Your task to perform on an android device: change timer sound Image 0: 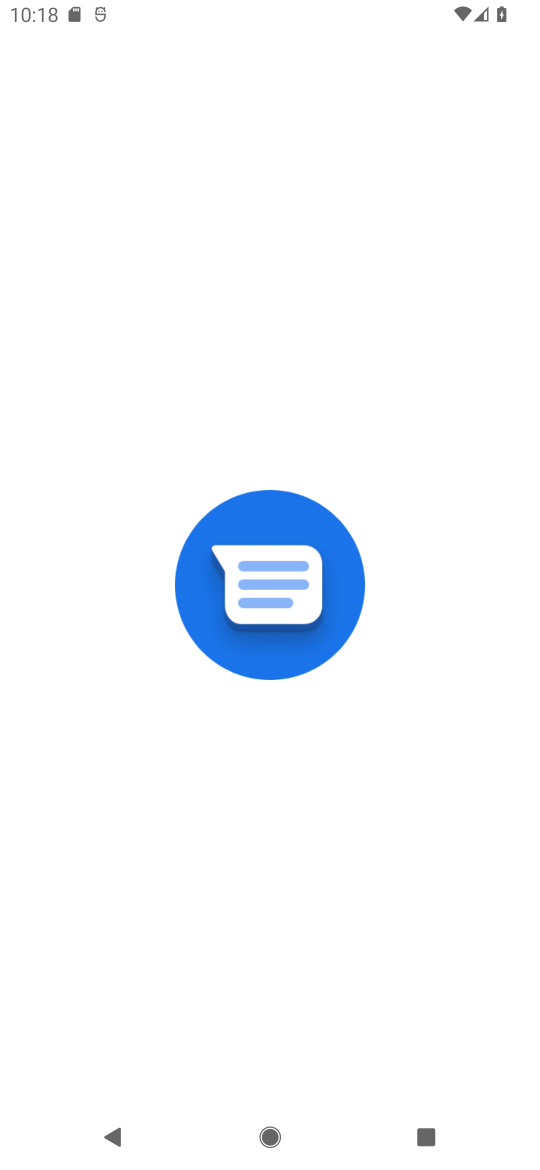
Step 0: press home button
Your task to perform on an android device: change timer sound Image 1: 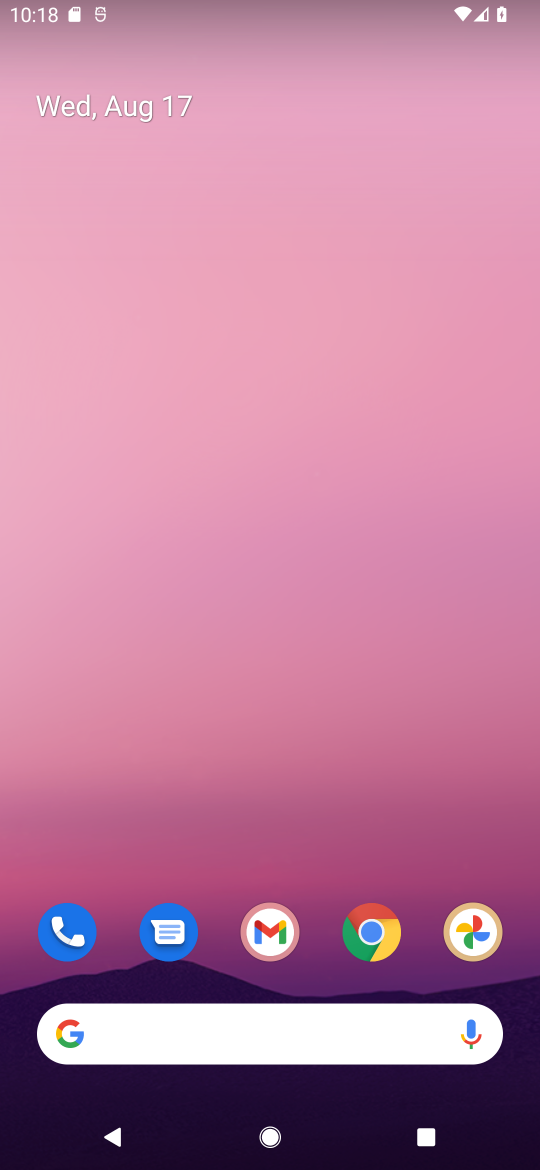
Step 1: drag from (338, 907) to (338, 78)
Your task to perform on an android device: change timer sound Image 2: 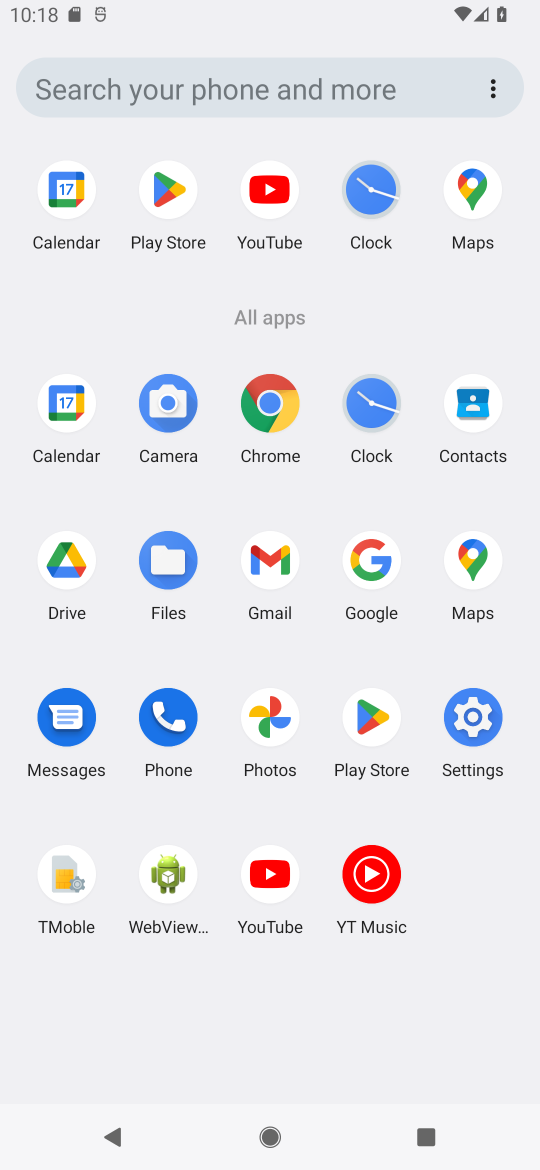
Step 2: click (374, 398)
Your task to perform on an android device: change timer sound Image 3: 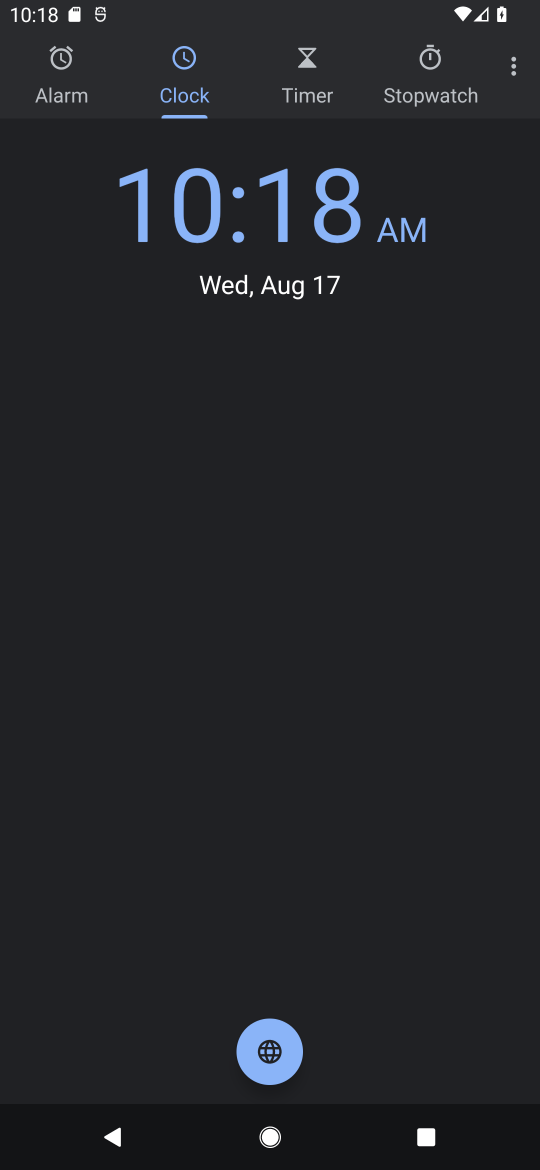
Step 3: click (512, 74)
Your task to perform on an android device: change timer sound Image 4: 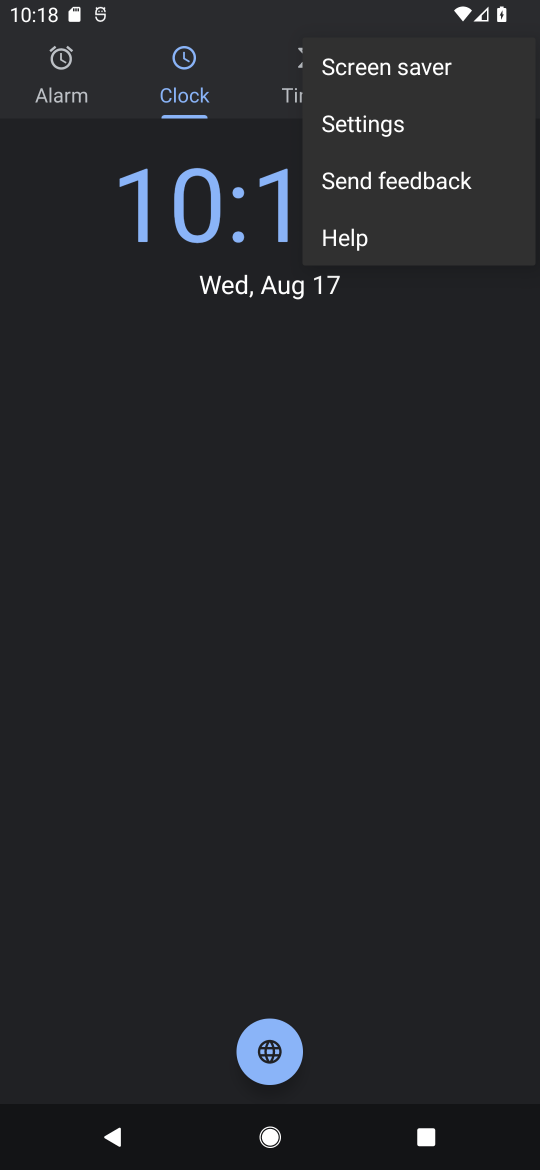
Step 4: click (370, 130)
Your task to perform on an android device: change timer sound Image 5: 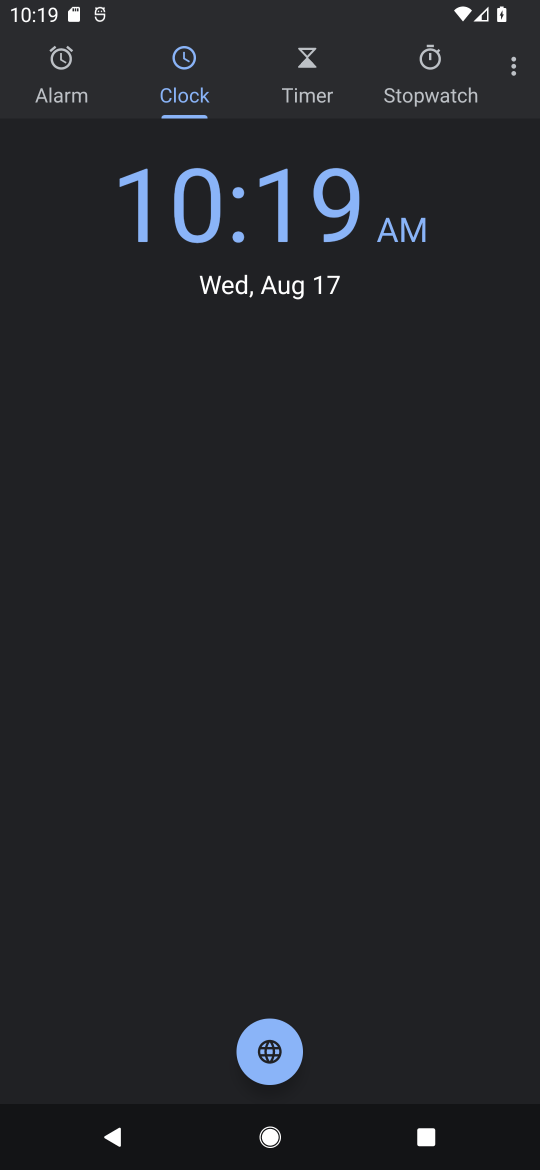
Step 5: click (515, 71)
Your task to perform on an android device: change timer sound Image 6: 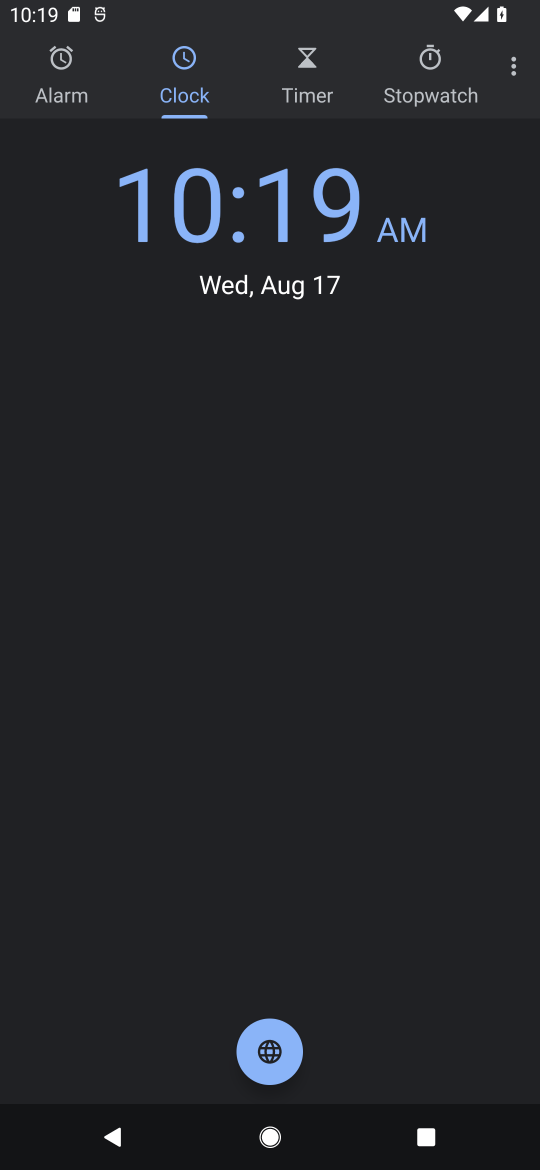
Step 6: click (509, 68)
Your task to perform on an android device: change timer sound Image 7: 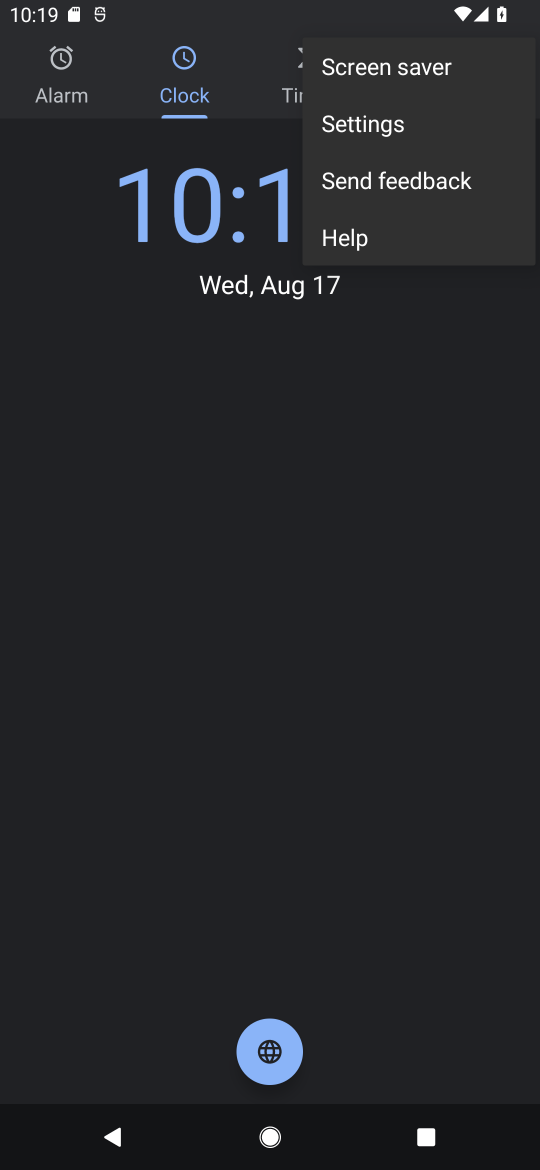
Step 7: click (368, 123)
Your task to perform on an android device: change timer sound Image 8: 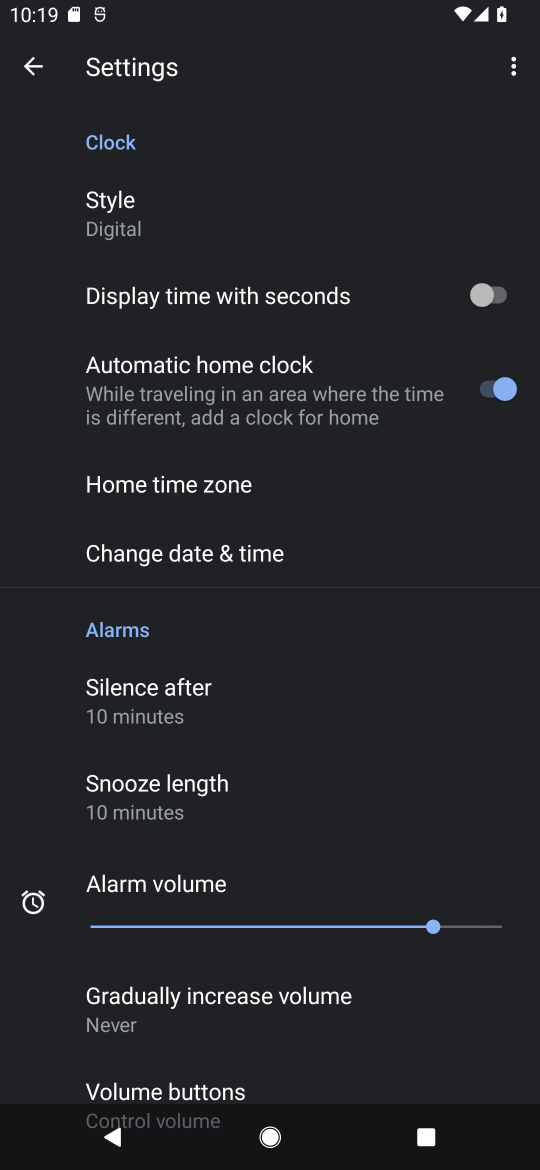
Step 8: drag from (166, 1030) to (192, 470)
Your task to perform on an android device: change timer sound Image 9: 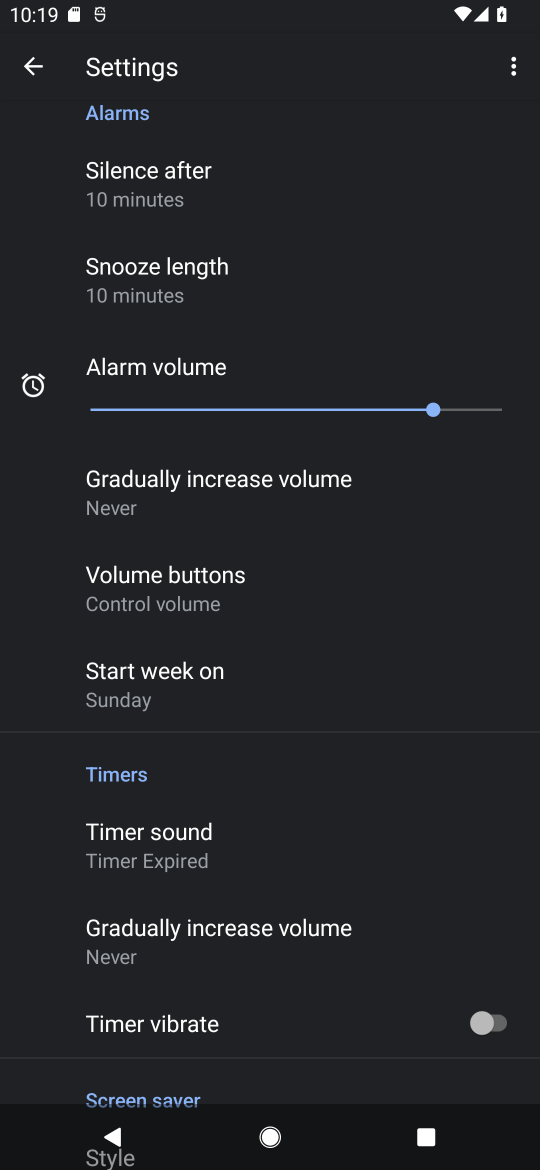
Step 9: click (137, 842)
Your task to perform on an android device: change timer sound Image 10: 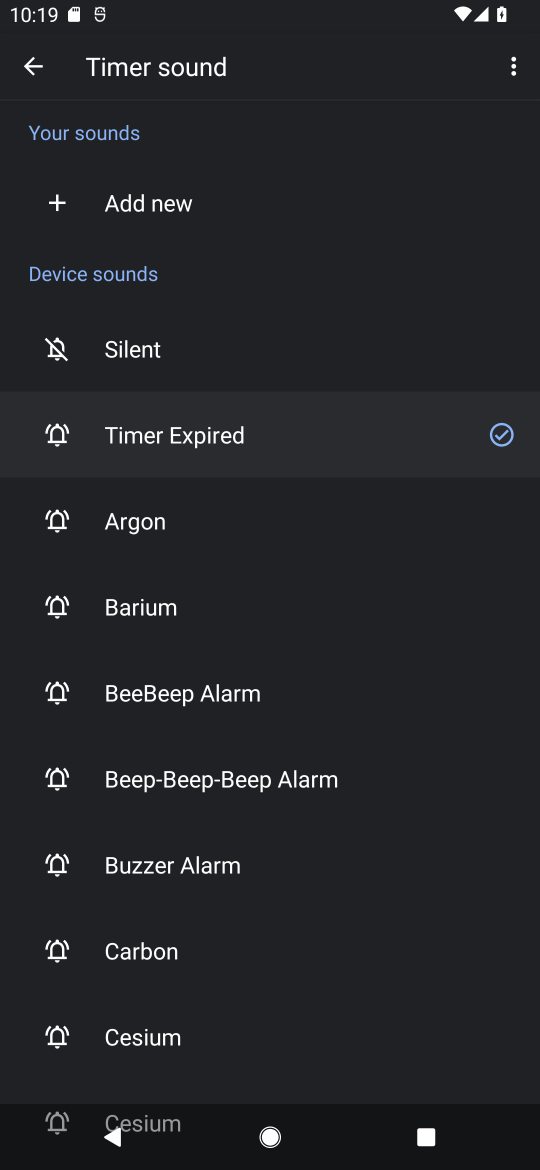
Step 10: click (125, 1040)
Your task to perform on an android device: change timer sound Image 11: 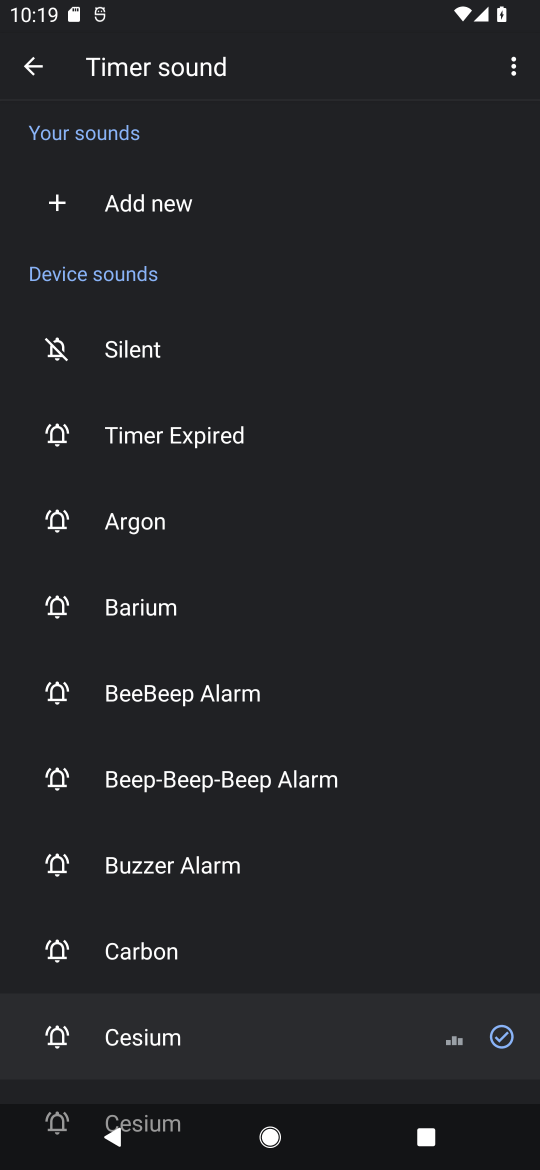
Step 11: task complete